Your task to perform on an android device: change notifications settings Image 0: 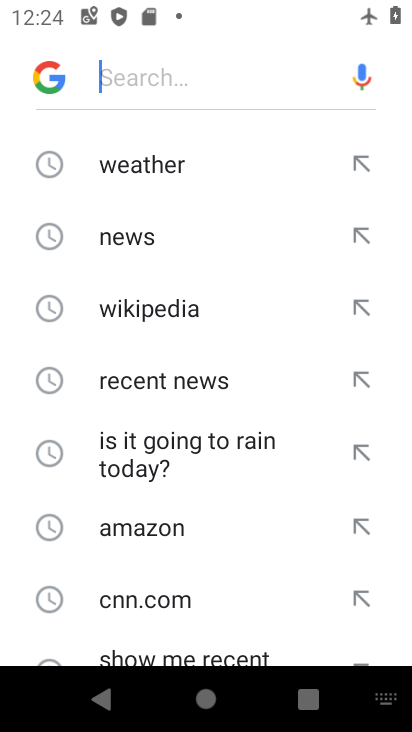
Step 0: press home button
Your task to perform on an android device: change notifications settings Image 1: 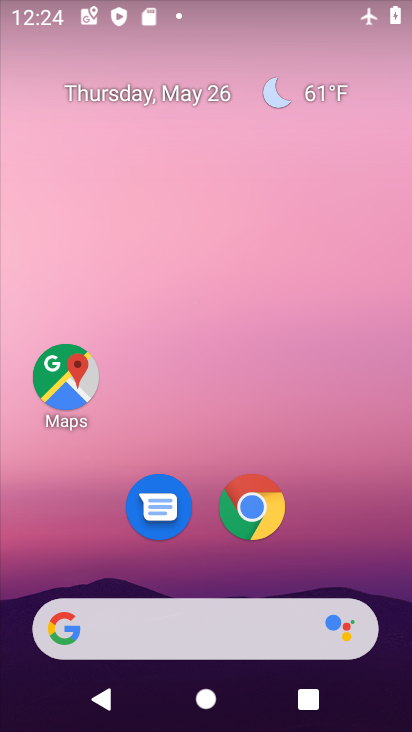
Step 1: drag from (342, 525) to (297, 151)
Your task to perform on an android device: change notifications settings Image 2: 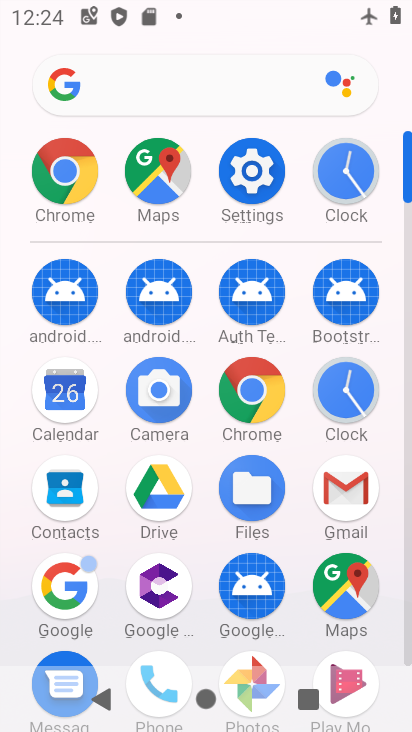
Step 2: click (261, 209)
Your task to perform on an android device: change notifications settings Image 3: 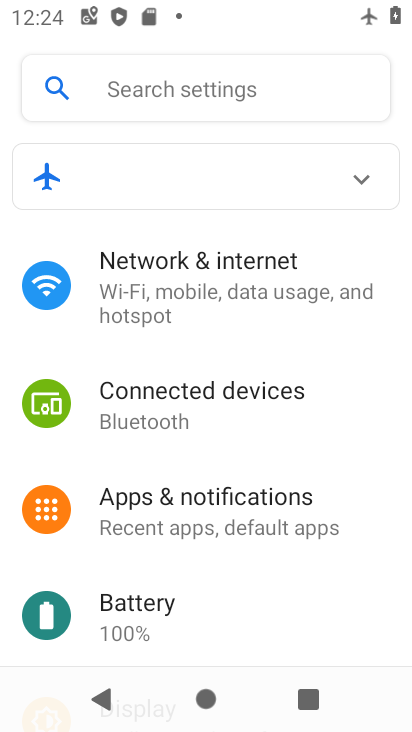
Step 3: click (235, 508)
Your task to perform on an android device: change notifications settings Image 4: 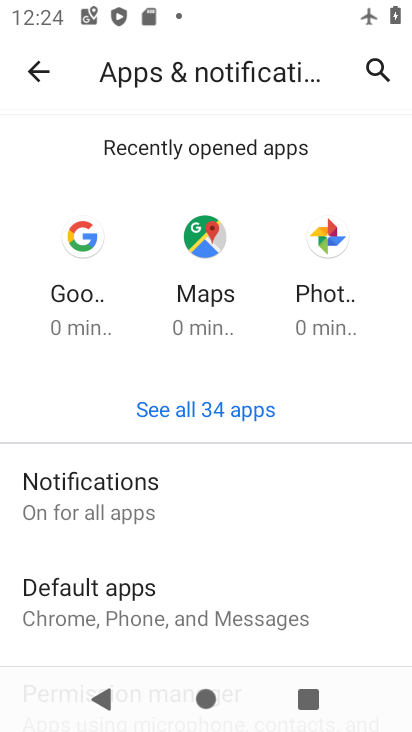
Step 4: click (232, 508)
Your task to perform on an android device: change notifications settings Image 5: 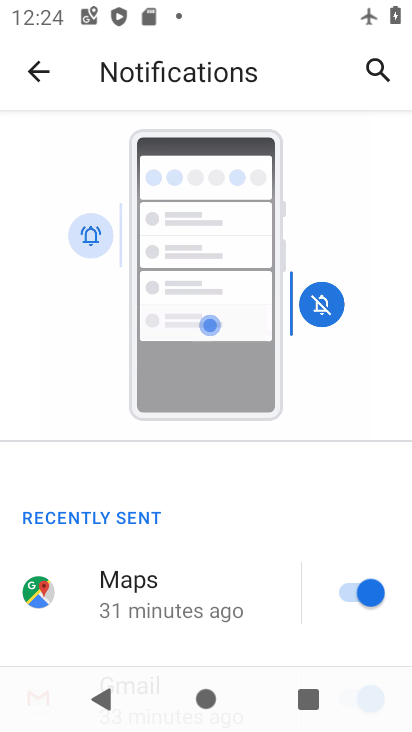
Step 5: click (347, 571)
Your task to perform on an android device: change notifications settings Image 6: 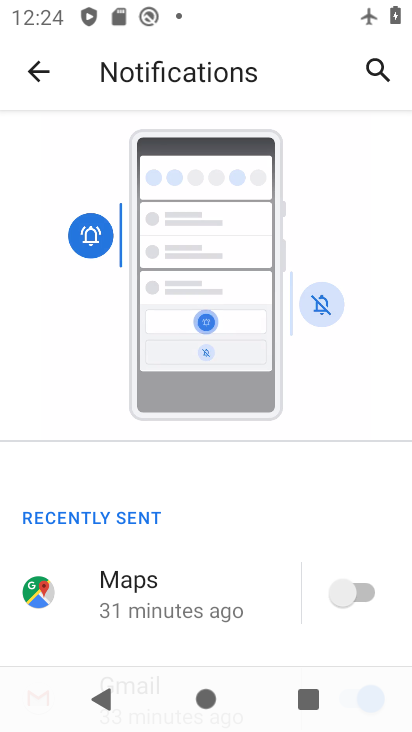
Step 6: task complete